Your task to perform on an android device: Open Chrome and go to settings Image 0: 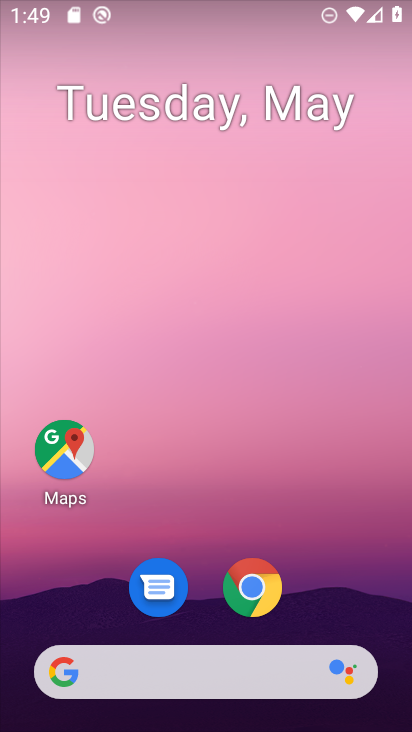
Step 0: click (254, 588)
Your task to perform on an android device: Open Chrome and go to settings Image 1: 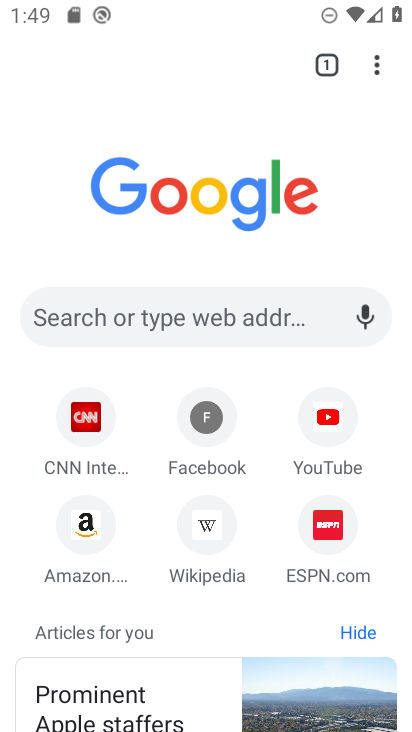
Step 1: click (359, 54)
Your task to perform on an android device: Open Chrome and go to settings Image 2: 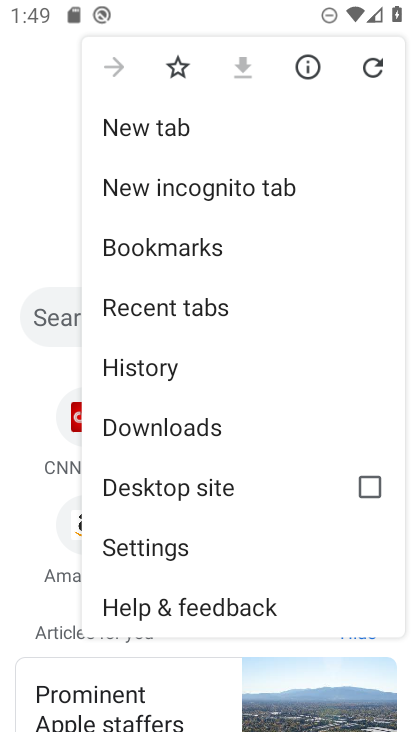
Step 2: click (161, 556)
Your task to perform on an android device: Open Chrome and go to settings Image 3: 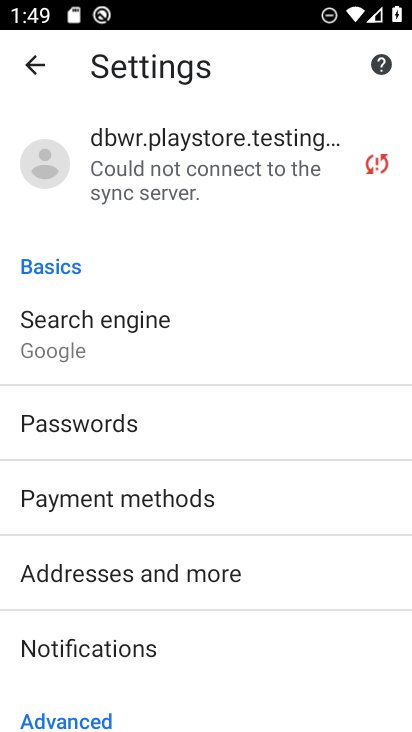
Step 3: task complete